Your task to perform on an android device: Go to CNN.com Image 0: 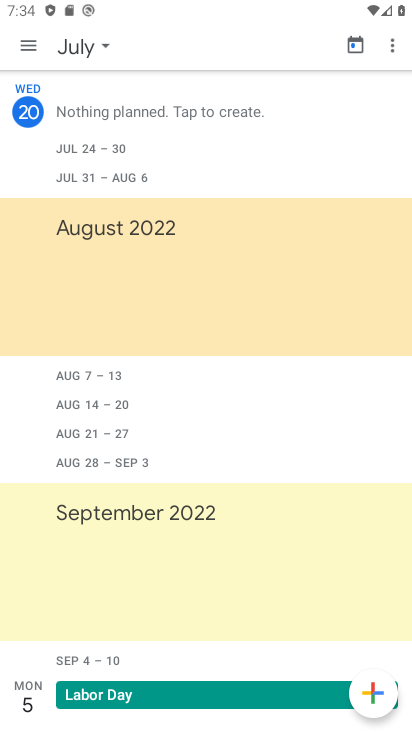
Step 0: press home button
Your task to perform on an android device: Go to CNN.com Image 1: 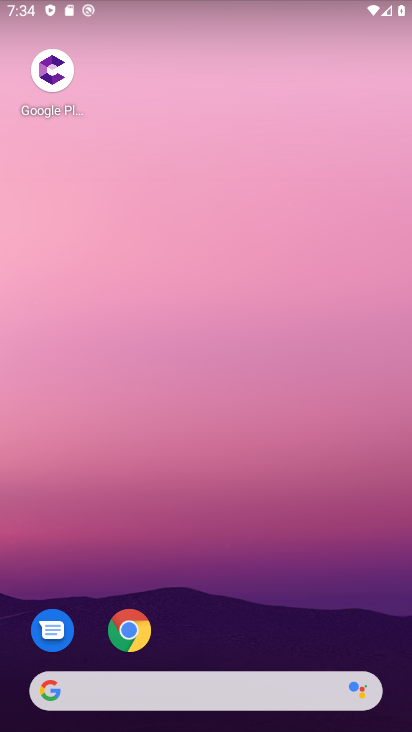
Step 1: drag from (189, 695) to (175, 225)
Your task to perform on an android device: Go to CNN.com Image 2: 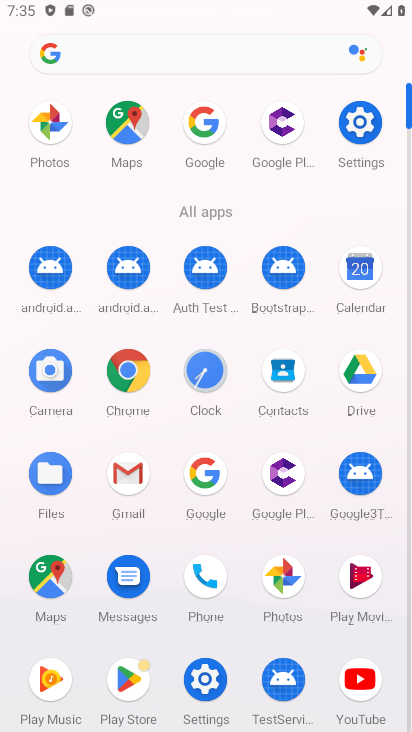
Step 2: click (120, 386)
Your task to perform on an android device: Go to CNN.com Image 3: 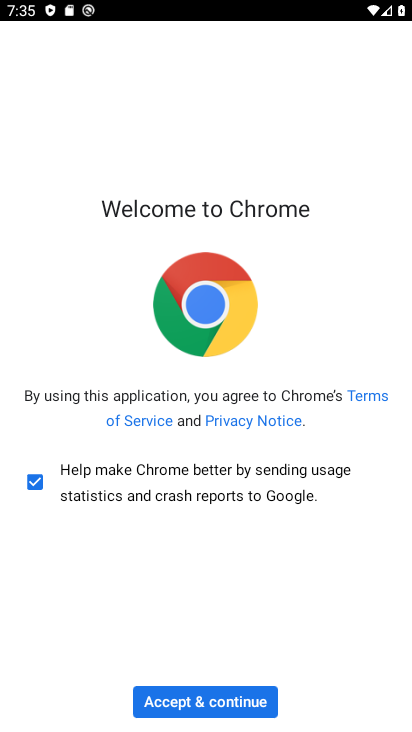
Step 3: click (244, 709)
Your task to perform on an android device: Go to CNN.com Image 4: 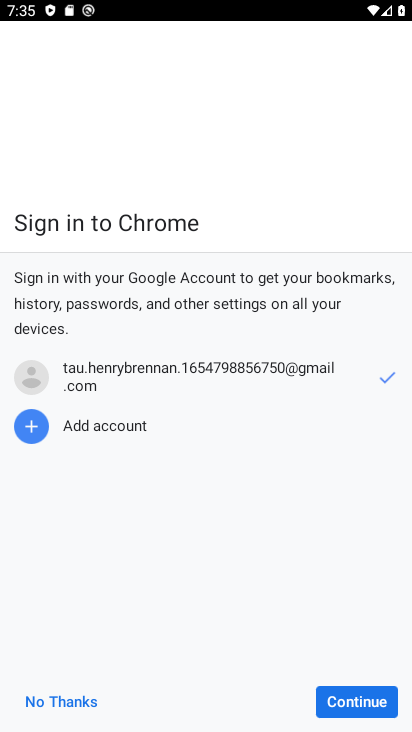
Step 4: click (361, 701)
Your task to perform on an android device: Go to CNN.com Image 5: 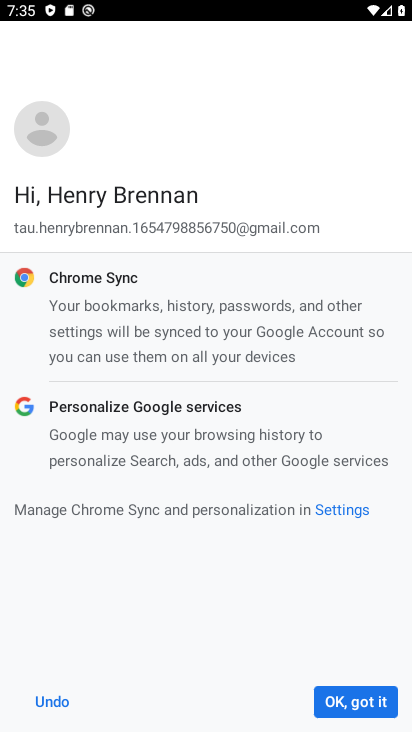
Step 5: click (363, 691)
Your task to perform on an android device: Go to CNN.com Image 6: 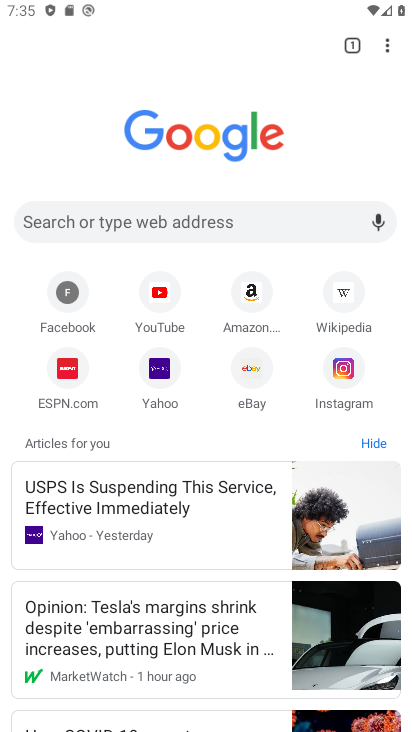
Step 6: click (205, 219)
Your task to perform on an android device: Go to CNN.com Image 7: 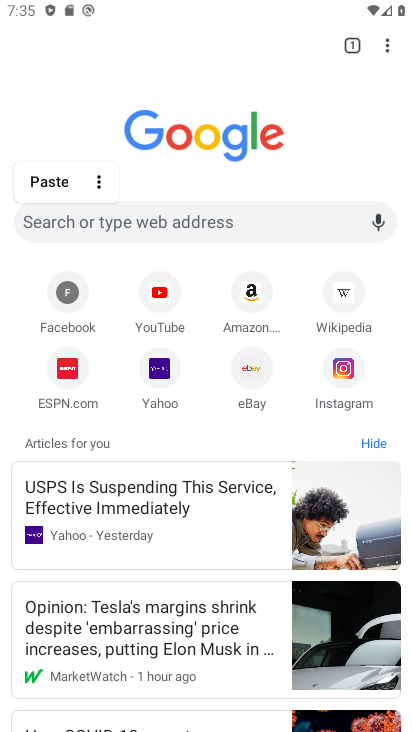
Step 7: type "cnn"
Your task to perform on an android device: Go to CNN.com Image 8: 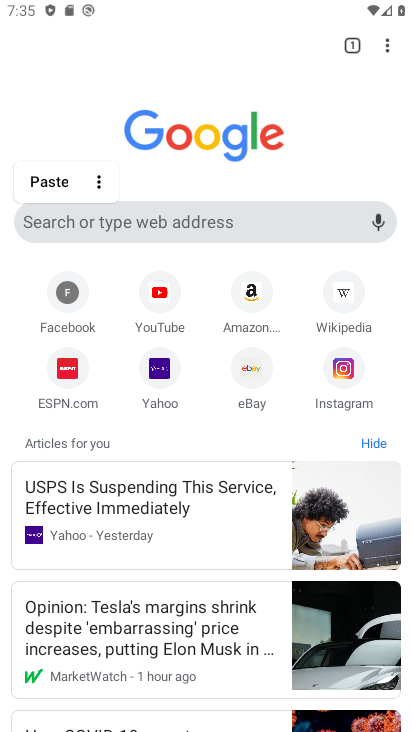
Step 8: click (185, 221)
Your task to perform on an android device: Go to CNN.com Image 9: 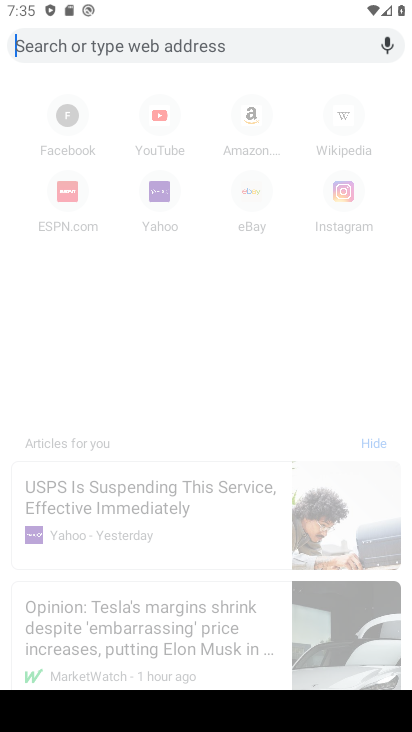
Step 9: type "cnn"
Your task to perform on an android device: Go to CNN.com Image 10: 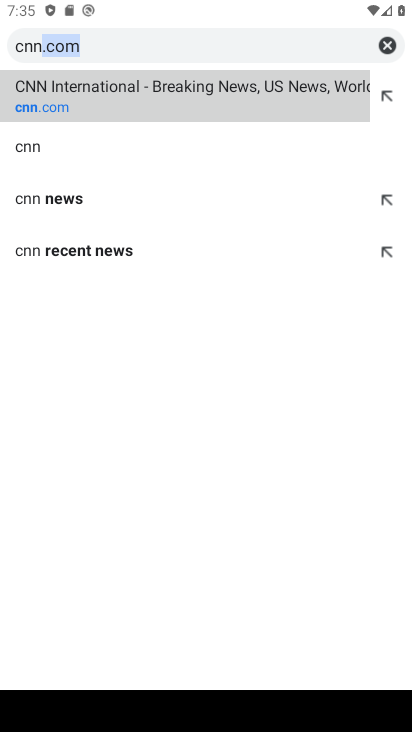
Step 10: click (85, 101)
Your task to perform on an android device: Go to CNN.com Image 11: 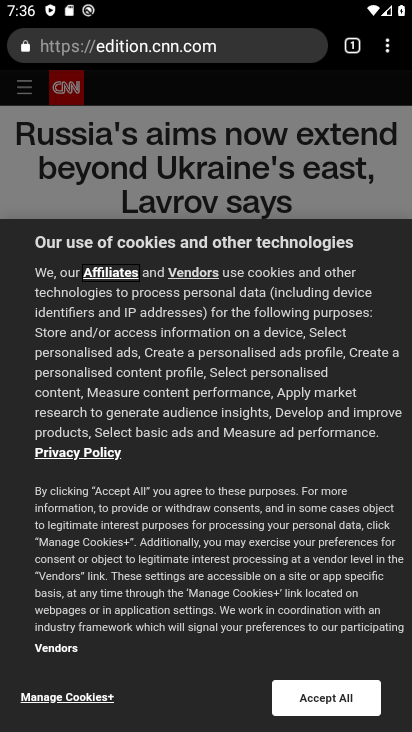
Step 11: task complete